Your task to perform on an android device: turn on airplane mode Image 0: 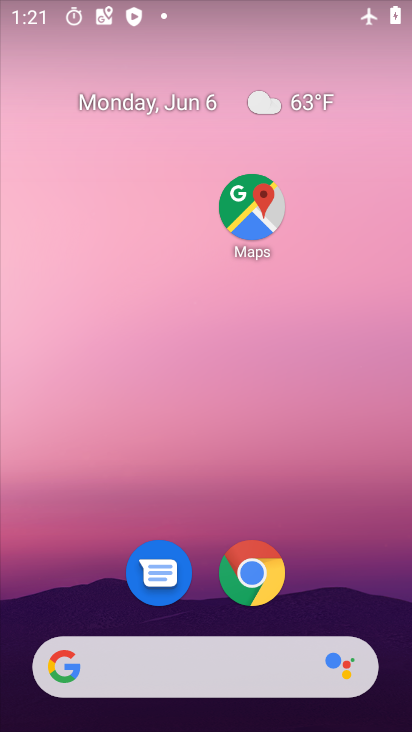
Step 0: drag from (211, 505) to (211, 2)
Your task to perform on an android device: turn on airplane mode Image 1: 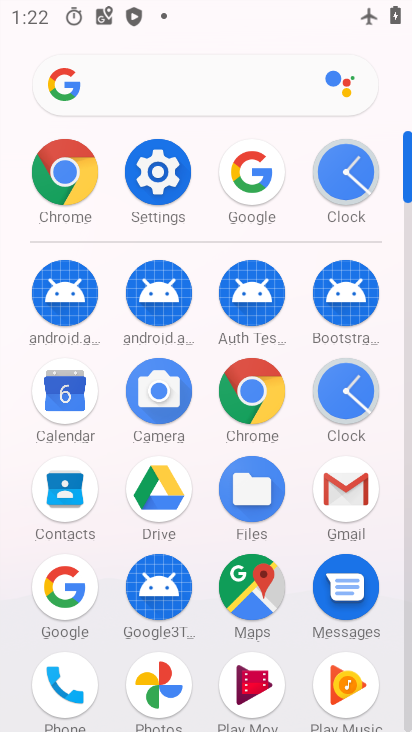
Step 1: drag from (304, 251) to (361, 6)
Your task to perform on an android device: turn on airplane mode Image 2: 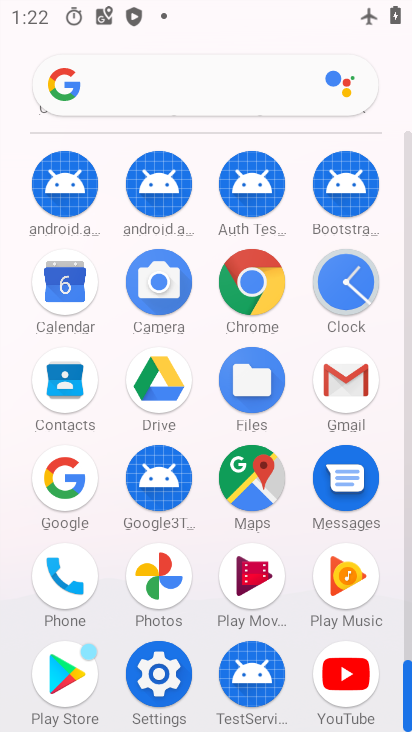
Step 2: drag from (288, 255) to (302, 22)
Your task to perform on an android device: turn on airplane mode Image 3: 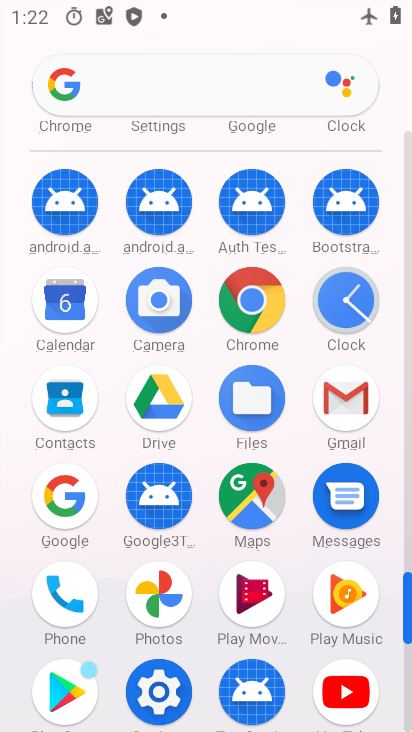
Step 3: click (159, 690)
Your task to perform on an android device: turn on airplane mode Image 4: 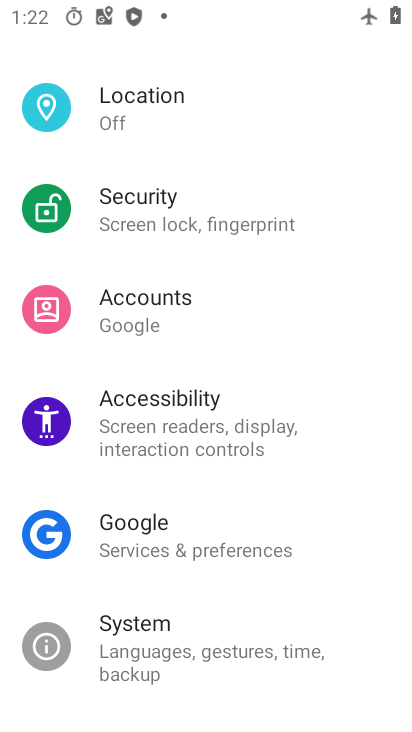
Step 4: drag from (226, 140) to (234, 721)
Your task to perform on an android device: turn on airplane mode Image 5: 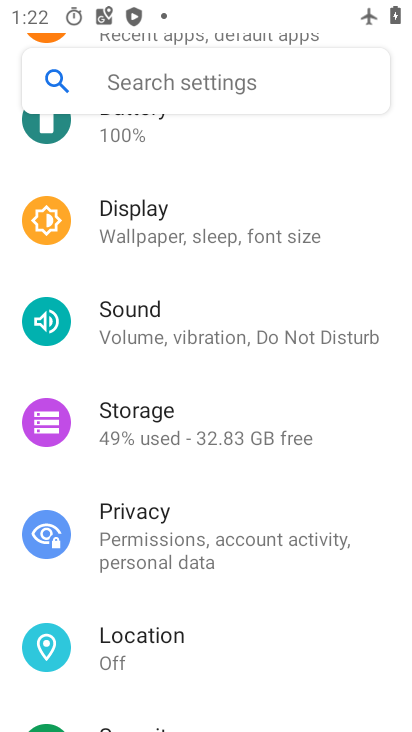
Step 5: drag from (239, 228) to (270, 675)
Your task to perform on an android device: turn on airplane mode Image 6: 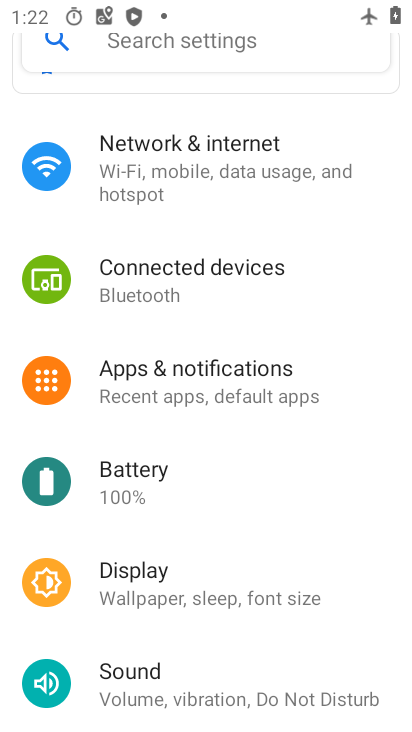
Step 6: drag from (247, 265) to (291, 719)
Your task to perform on an android device: turn on airplane mode Image 7: 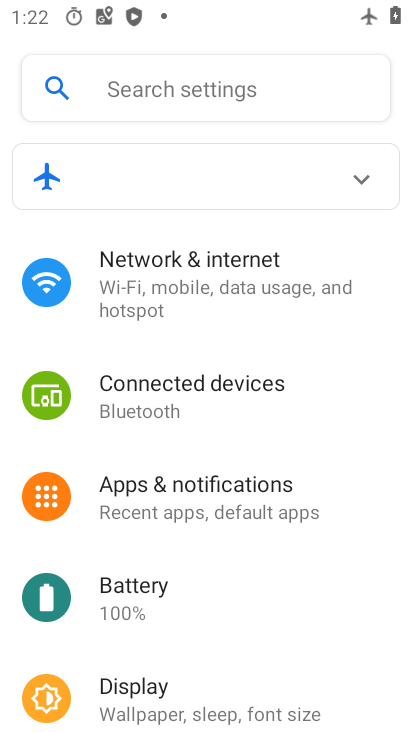
Step 7: click (254, 294)
Your task to perform on an android device: turn on airplane mode Image 8: 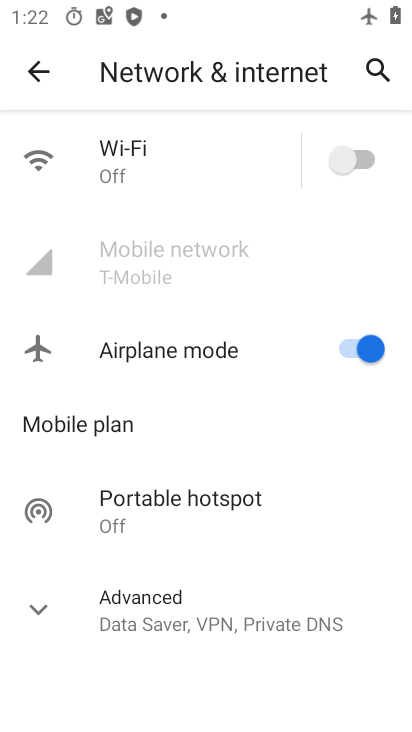
Step 8: task complete